Your task to perform on an android device: turn off smart reply in the gmail app Image 0: 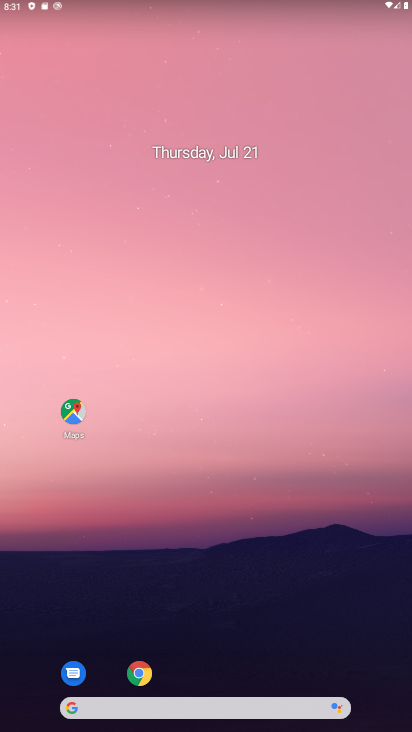
Step 0: drag from (222, 696) to (196, 222)
Your task to perform on an android device: turn off smart reply in the gmail app Image 1: 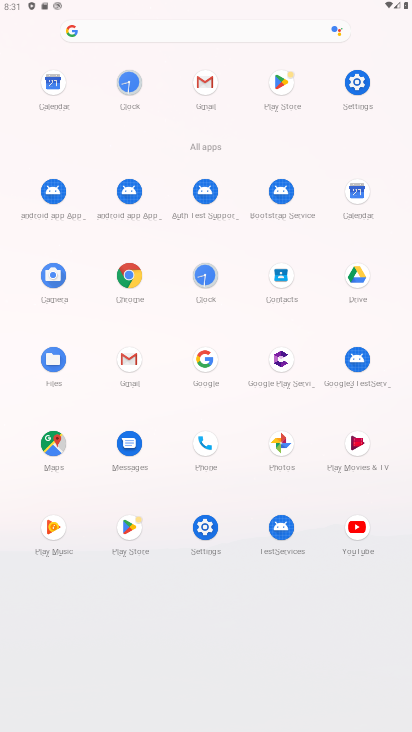
Step 1: click (128, 354)
Your task to perform on an android device: turn off smart reply in the gmail app Image 2: 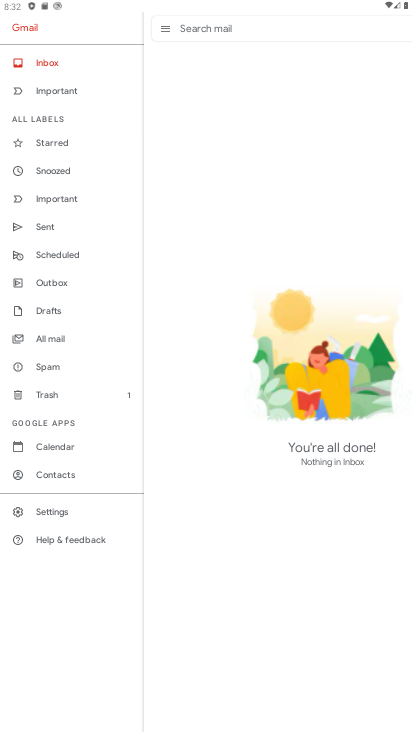
Step 2: click (55, 510)
Your task to perform on an android device: turn off smart reply in the gmail app Image 3: 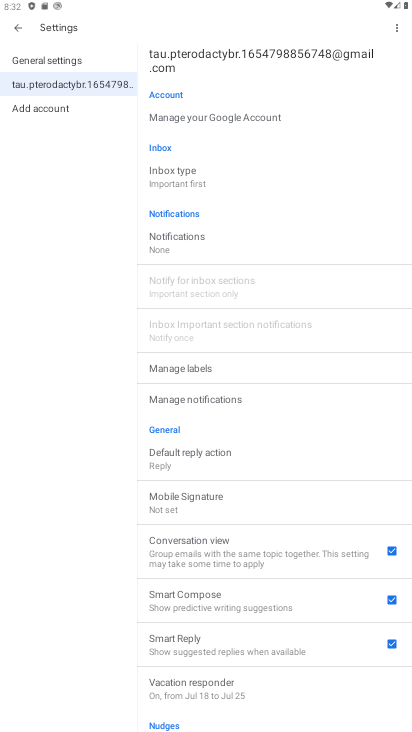
Step 3: click (396, 638)
Your task to perform on an android device: turn off smart reply in the gmail app Image 4: 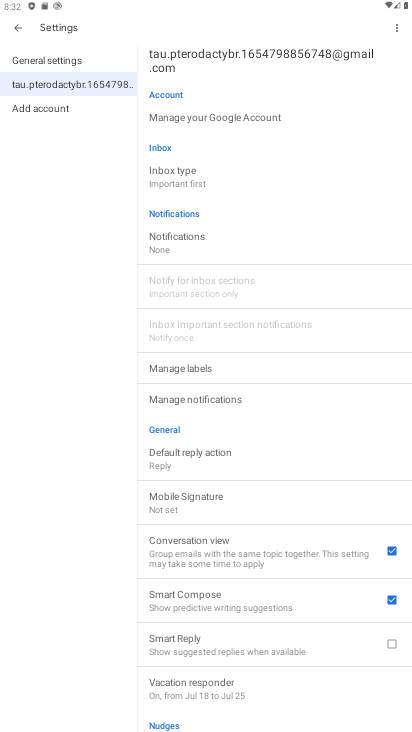
Step 4: task complete